Your task to perform on an android device: Clear the shopping cart on amazon.com. Add bose soundlink to the cart on amazon.com, then select checkout. Image 0: 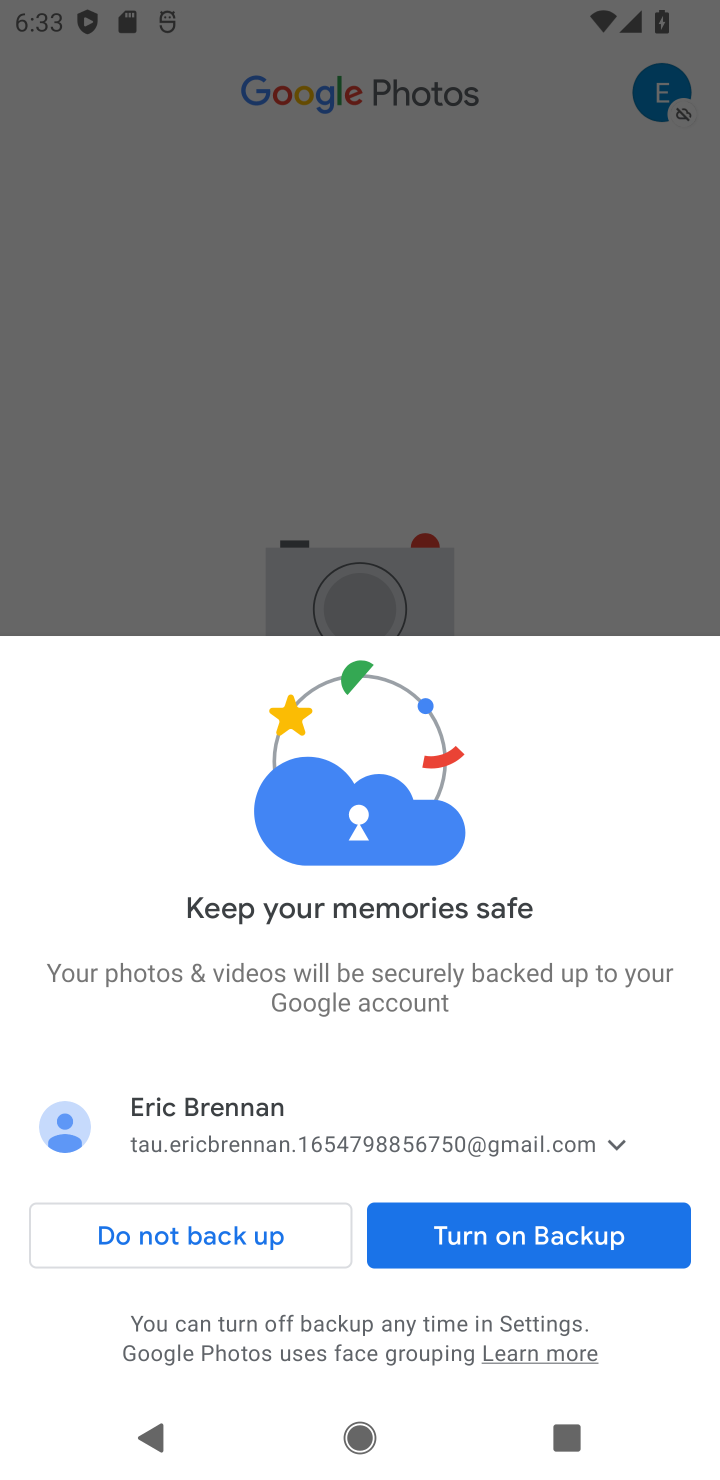
Step 0: press home button
Your task to perform on an android device: Clear the shopping cart on amazon.com. Add bose soundlink to the cart on amazon.com, then select checkout. Image 1: 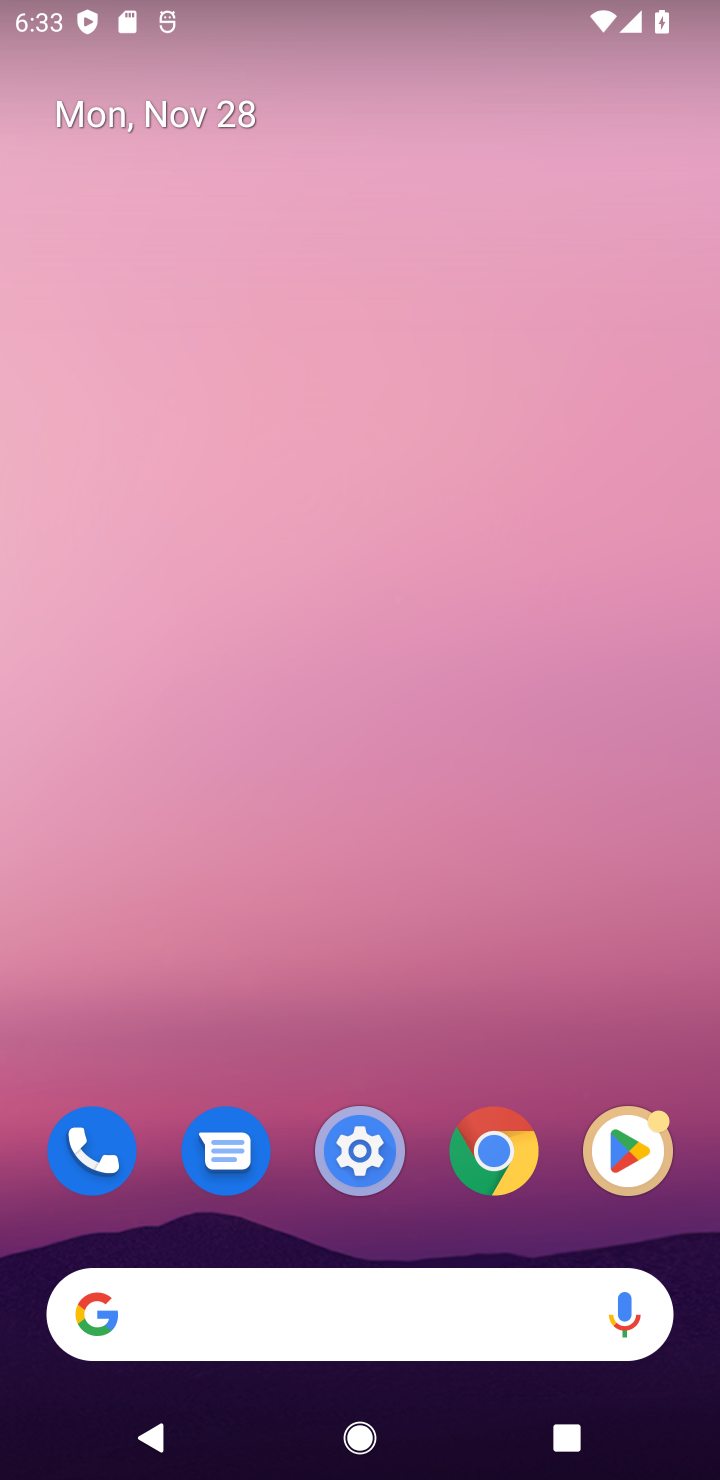
Step 1: click (353, 1300)
Your task to perform on an android device: Clear the shopping cart on amazon.com. Add bose soundlink to the cart on amazon.com, then select checkout. Image 2: 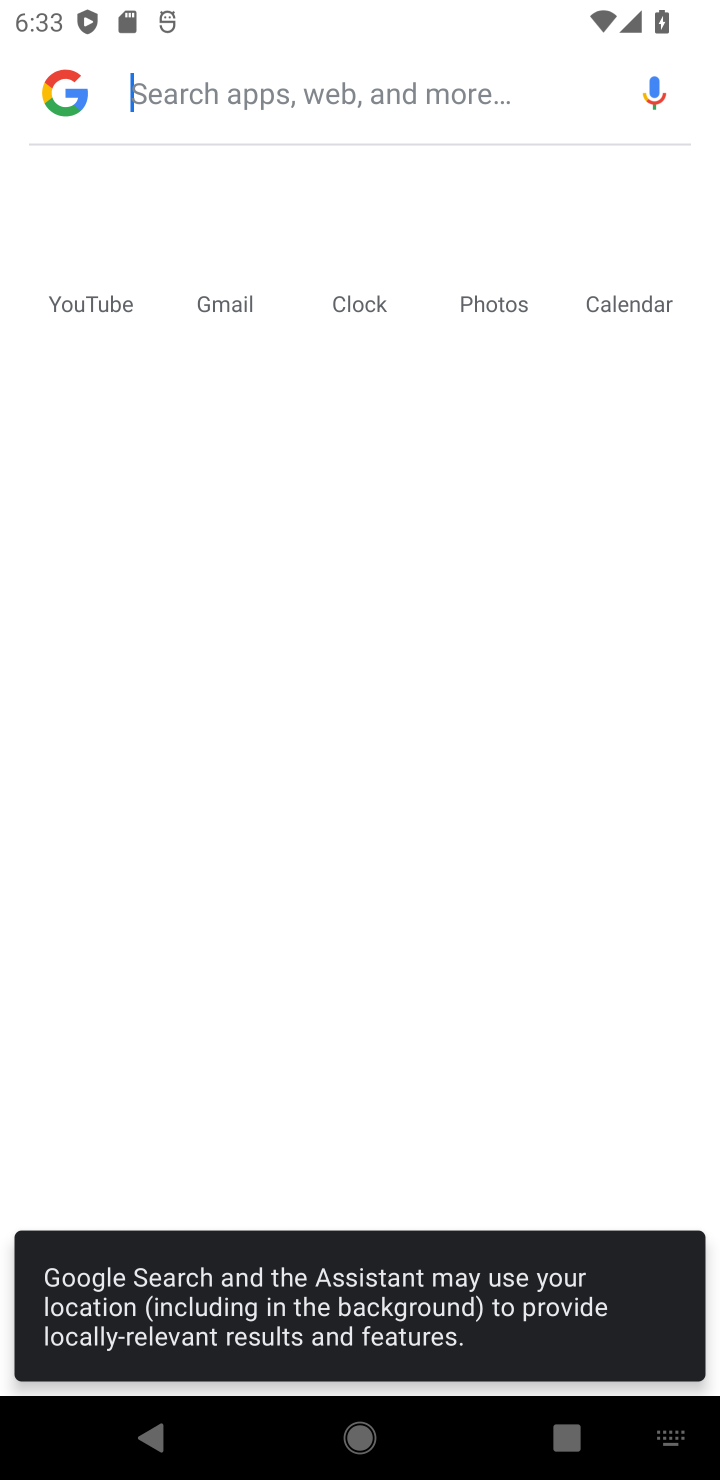
Step 2: type "amazon.com"
Your task to perform on an android device: Clear the shopping cart on amazon.com. Add bose soundlink to the cart on amazon.com, then select checkout. Image 3: 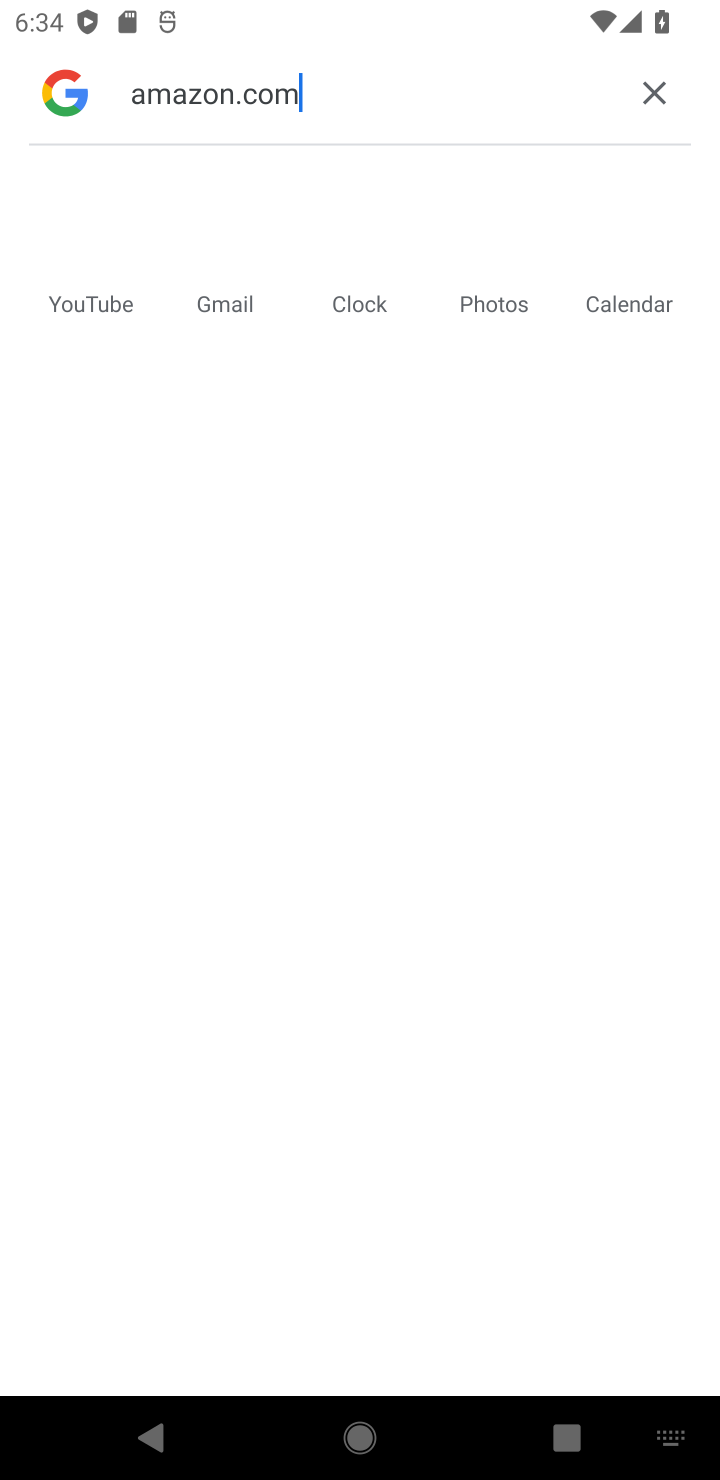
Step 3: click (366, 108)
Your task to perform on an android device: Clear the shopping cart on amazon.com. Add bose soundlink to the cart on amazon.com, then select checkout. Image 4: 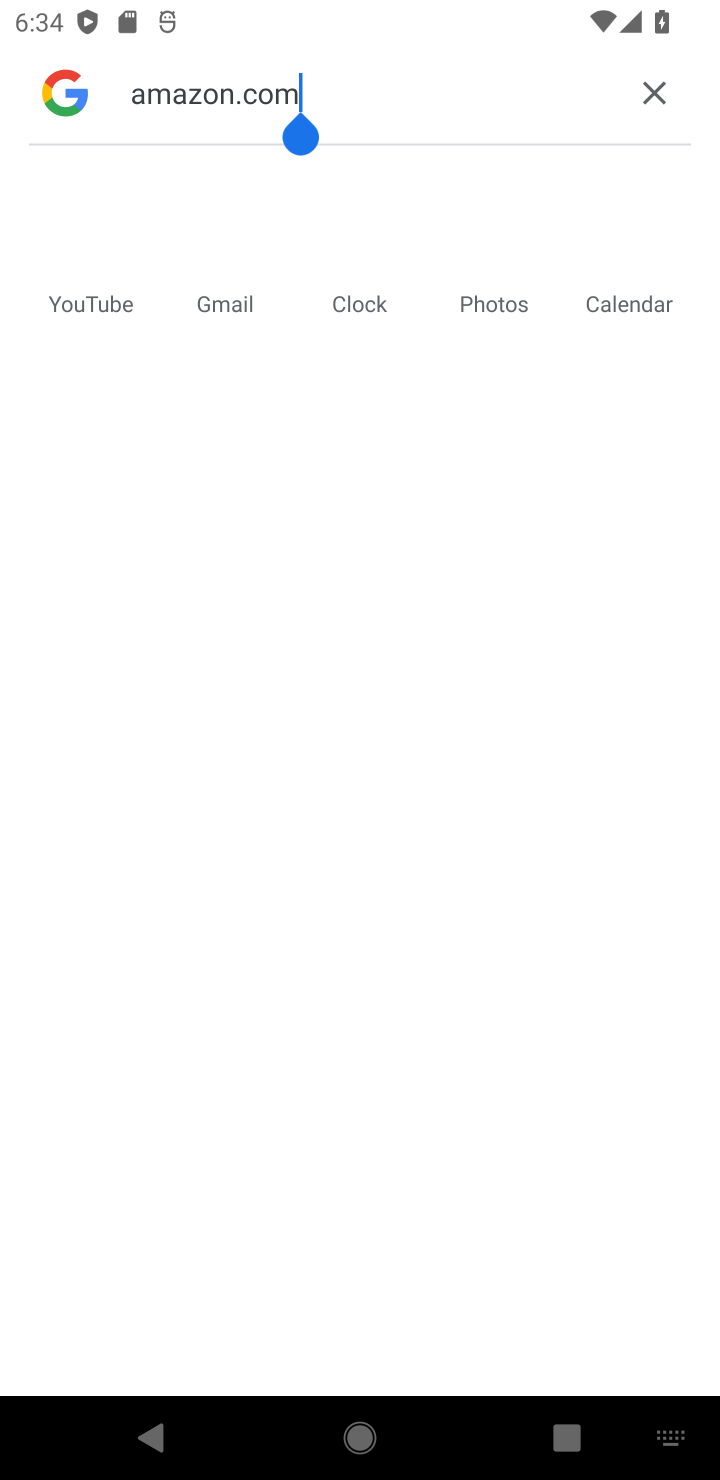
Step 4: click (643, 103)
Your task to perform on an android device: Clear the shopping cart on amazon.com. Add bose soundlink to the cart on amazon.com, then select checkout. Image 5: 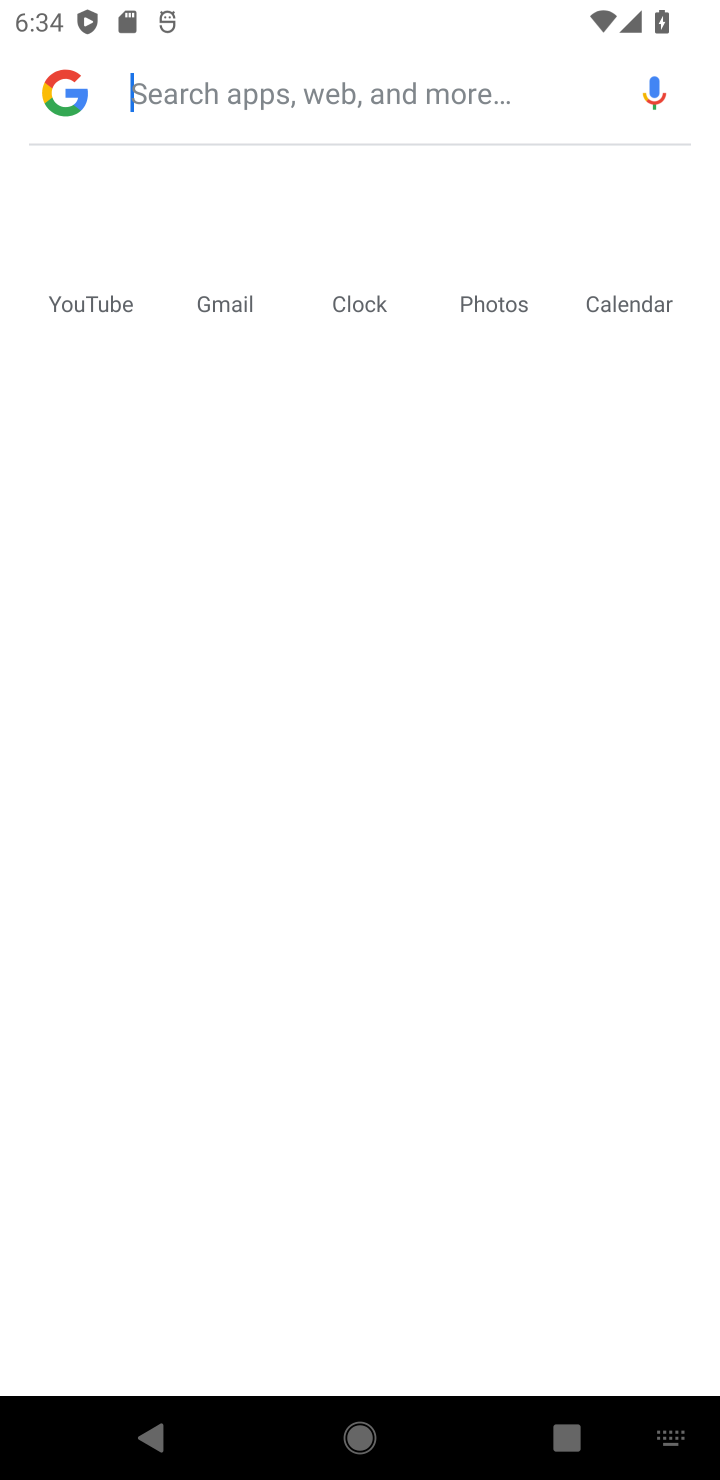
Step 5: press home button
Your task to perform on an android device: Clear the shopping cart on amazon.com. Add bose soundlink to the cart on amazon.com, then select checkout. Image 6: 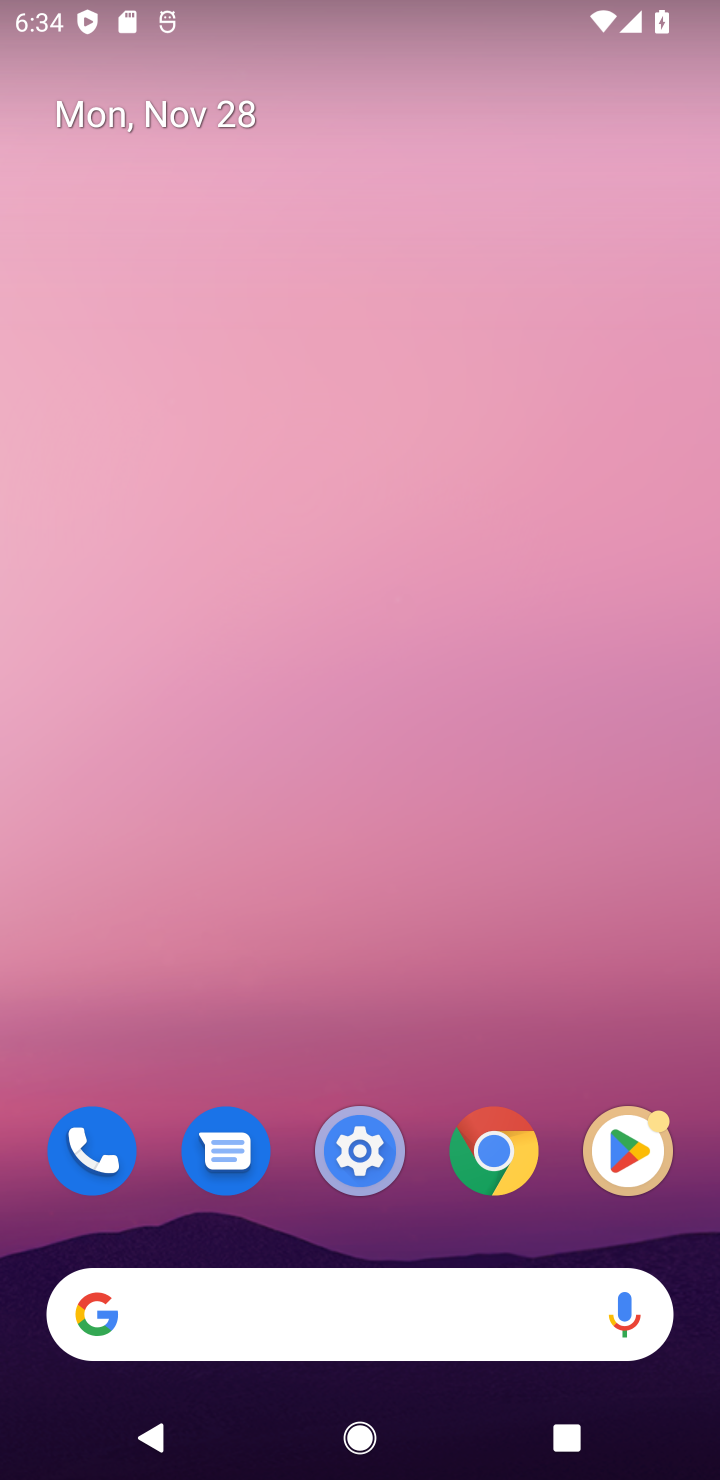
Step 6: click (485, 1156)
Your task to perform on an android device: Clear the shopping cart on amazon.com. Add bose soundlink to the cart on amazon.com, then select checkout. Image 7: 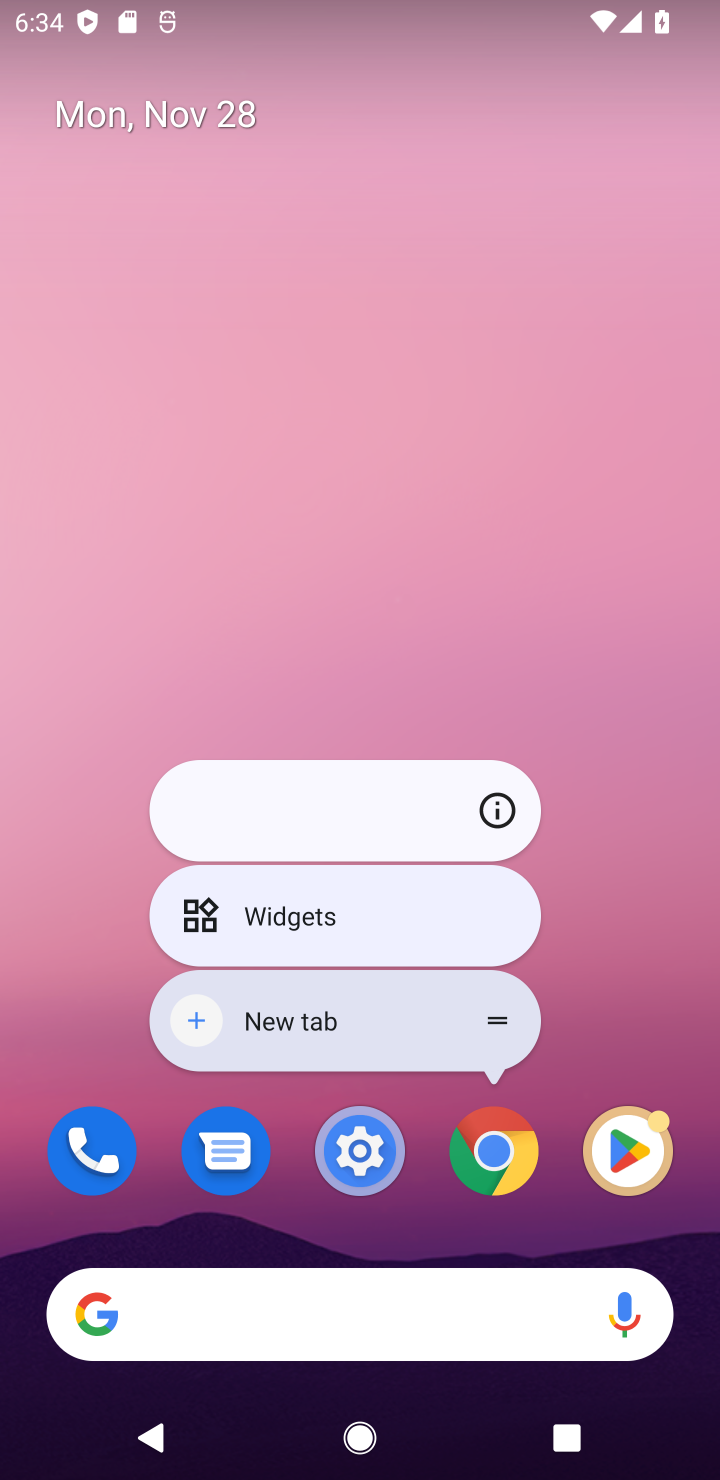
Step 7: click (485, 1156)
Your task to perform on an android device: Clear the shopping cart on amazon.com. Add bose soundlink to the cart on amazon.com, then select checkout. Image 8: 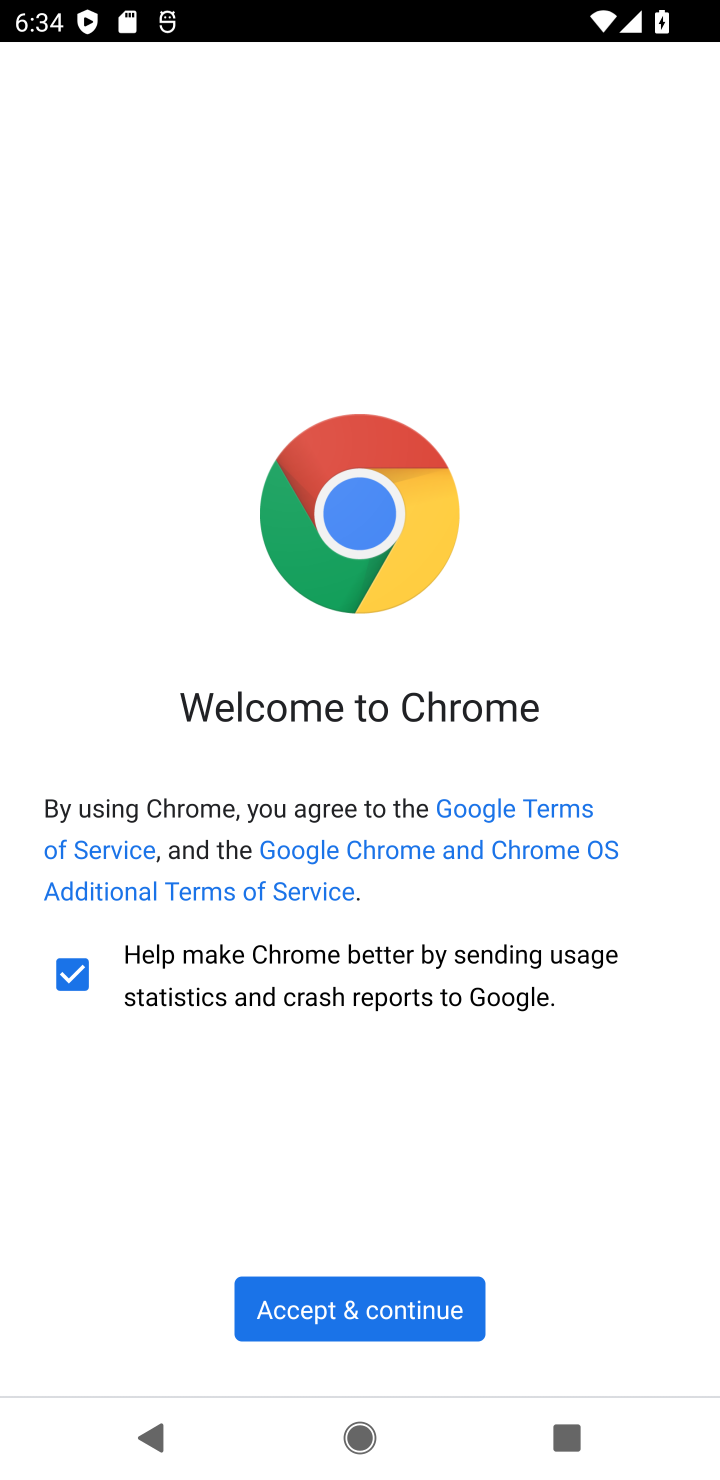
Step 8: click (396, 1286)
Your task to perform on an android device: Clear the shopping cart on amazon.com. Add bose soundlink to the cart on amazon.com, then select checkout. Image 9: 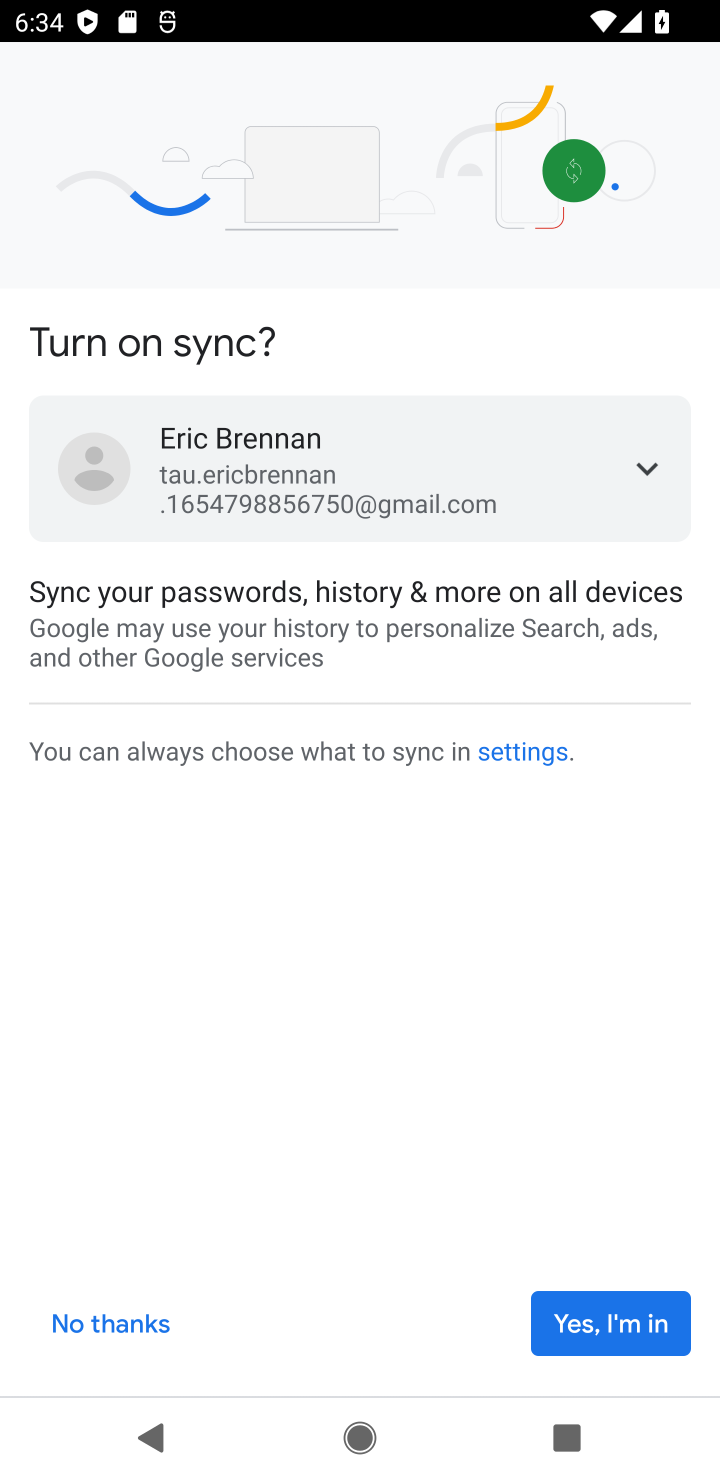
Step 9: click (647, 1324)
Your task to perform on an android device: Clear the shopping cart on amazon.com. Add bose soundlink to the cart on amazon.com, then select checkout. Image 10: 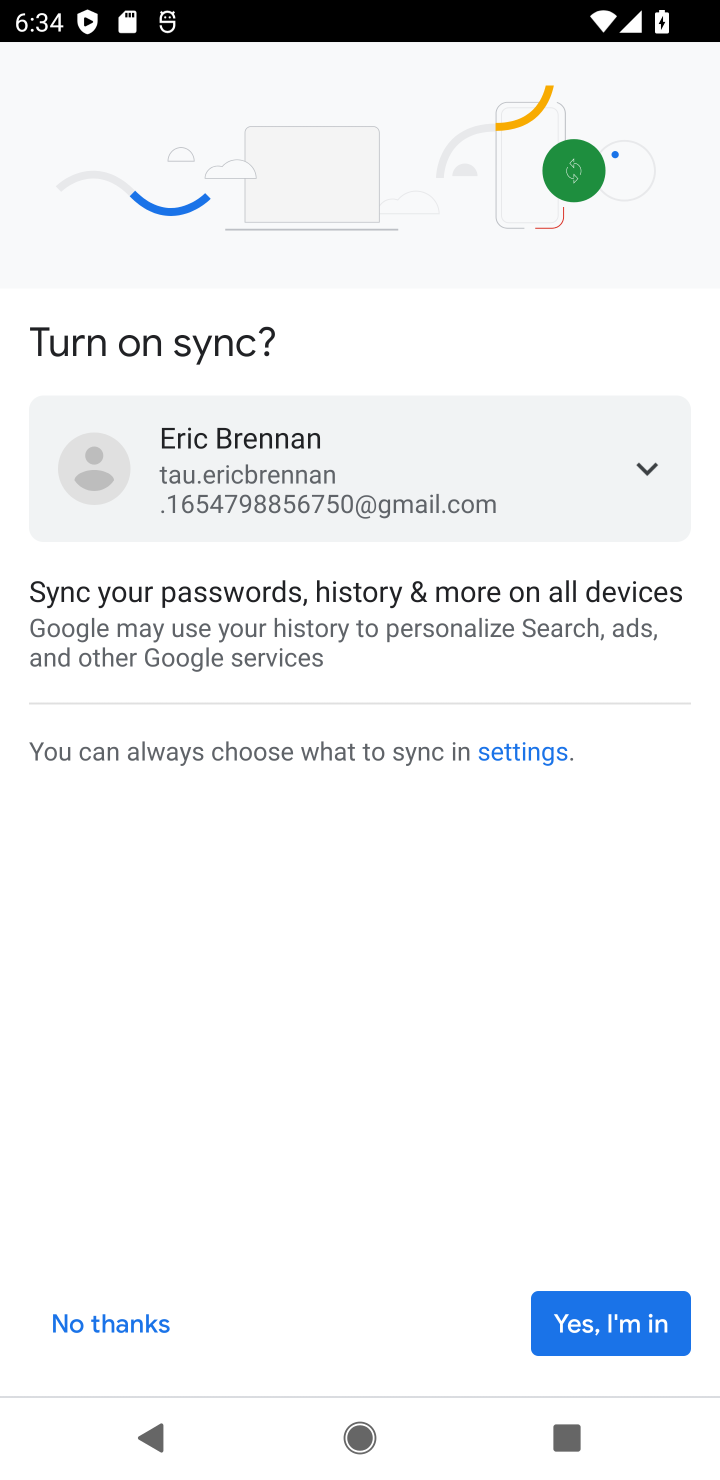
Step 10: click (647, 1324)
Your task to perform on an android device: Clear the shopping cart on amazon.com. Add bose soundlink to the cart on amazon.com, then select checkout. Image 11: 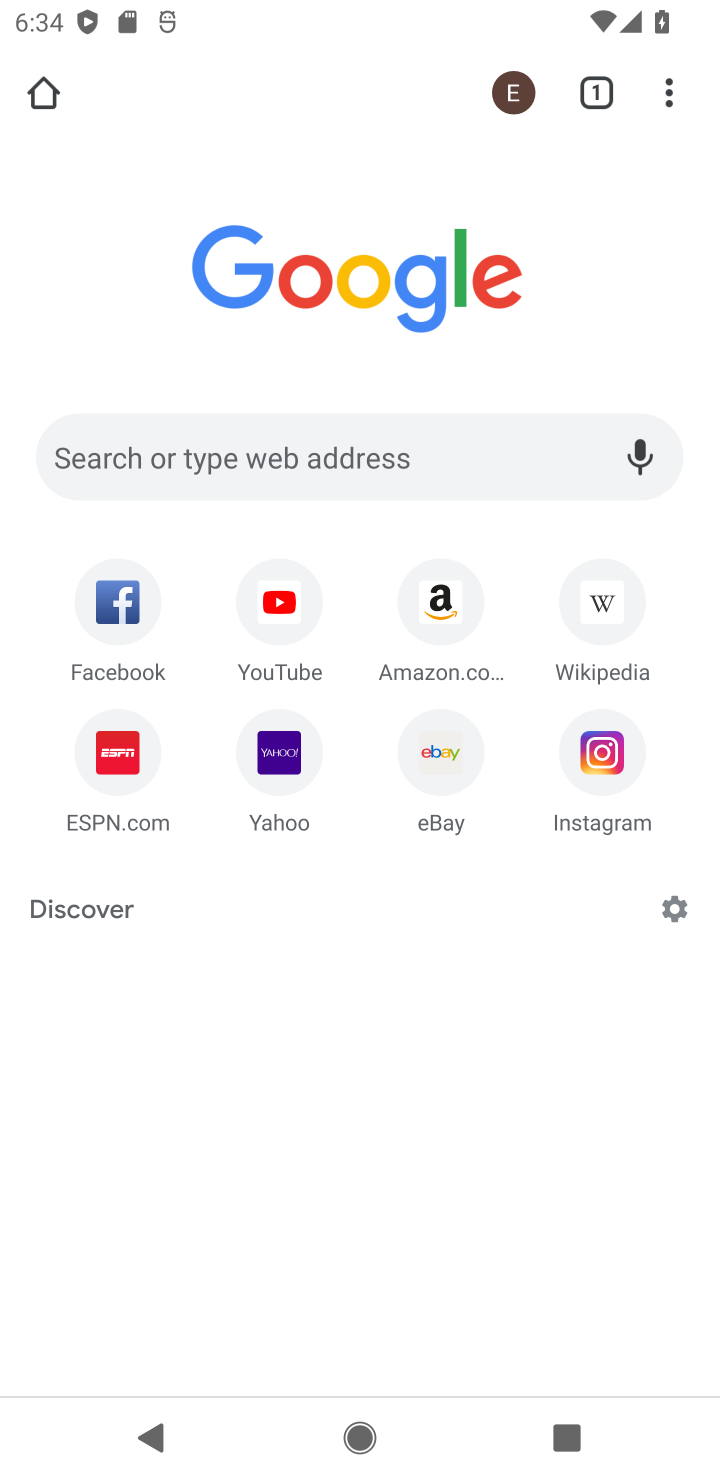
Step 11: click (256, 473)
Your task to perform on an android device: Clear the shopping cart on amazon.com. Add bose soundlink to the cart on amazon.com, then select checkout. Image 12: 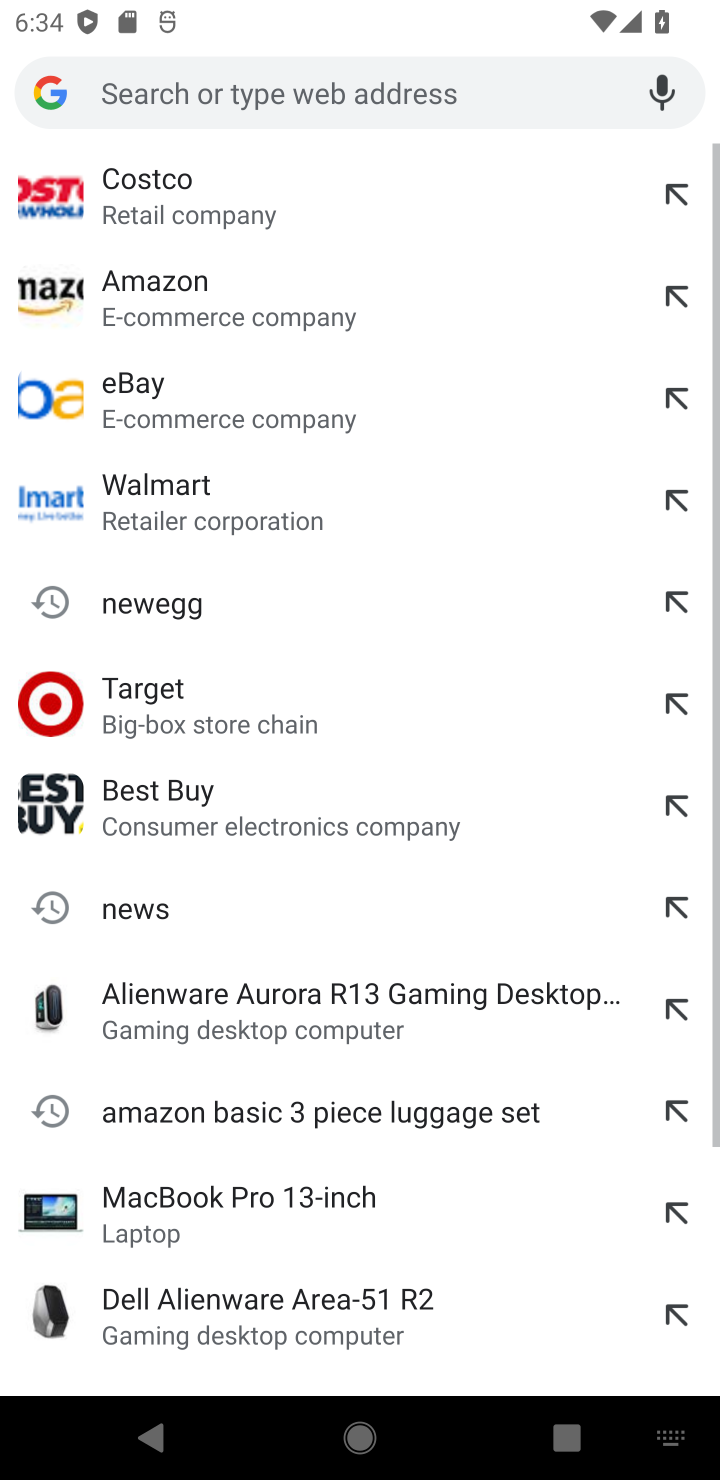
Step 12: click (213, 296)
Your task to perform on an android device: Clear the shopping cart on amazon.com. Add bose soundlink to the cart on amazon.com, then select checkout. Image 13: 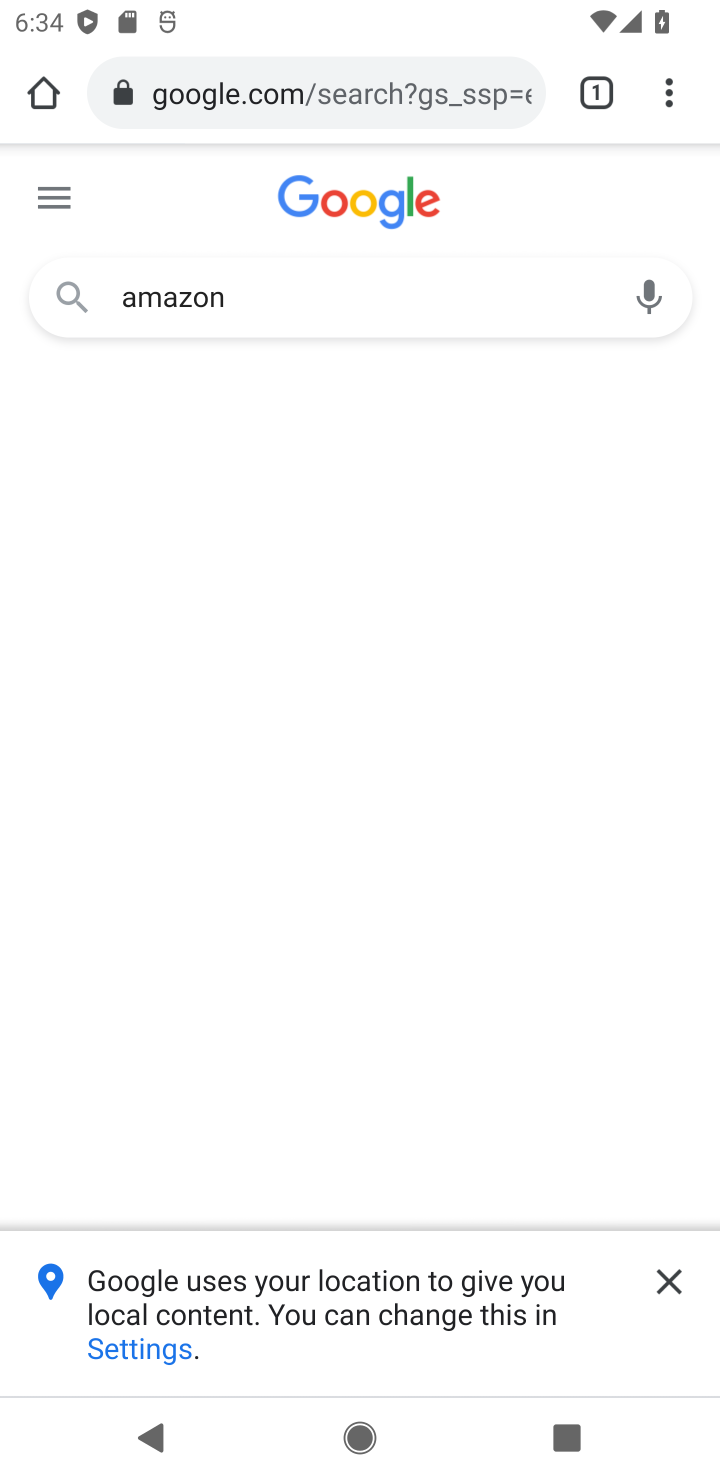
Step 13: click (675, 1271)
Your task to perform on an android device: Clear the shopping cart on amazon.com. Add bose soundlink to the cart on amazon.com, then select checkout. Image 14: 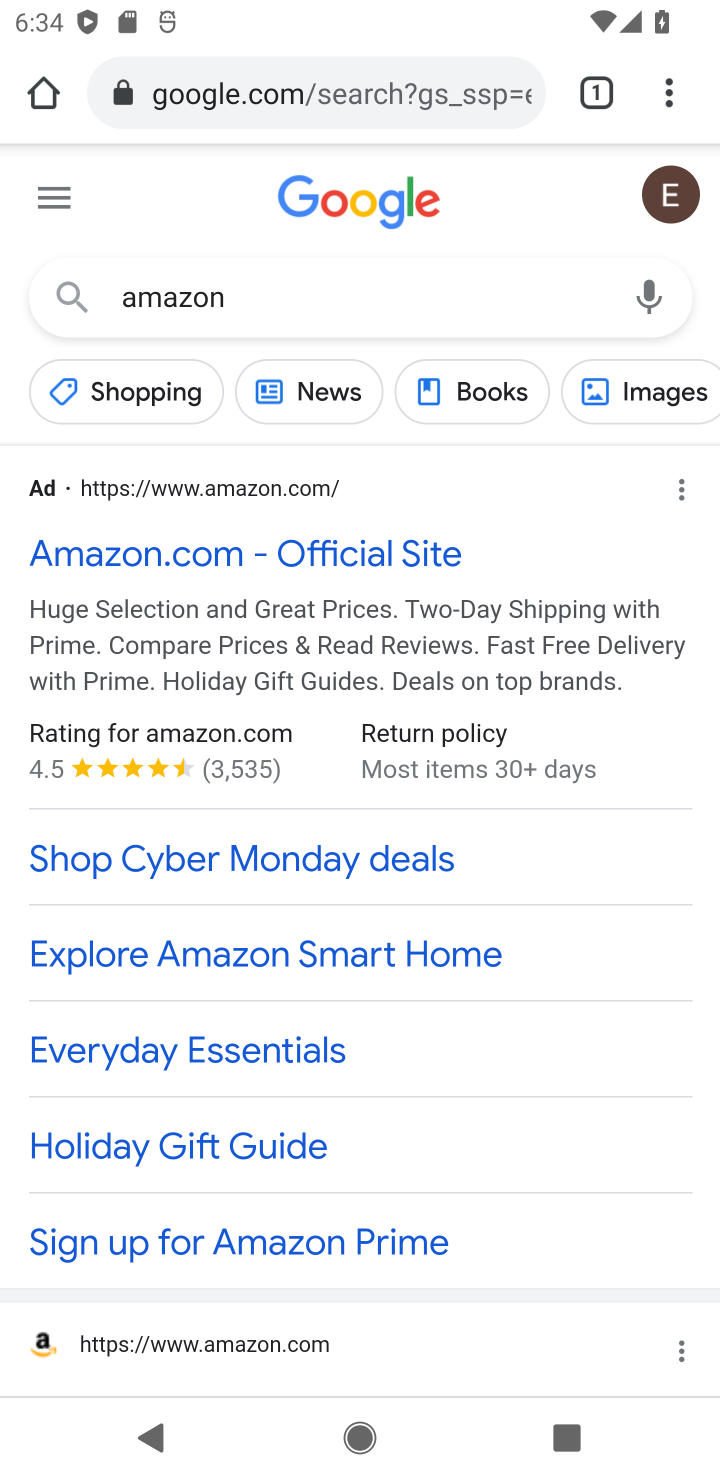
Step 14: click (148, 559)
Your task to perform on an android device: Clear the shopping cart on amazon.com. Add bose soundlink to the cart on amazon.com, then select checkout. Image 15: 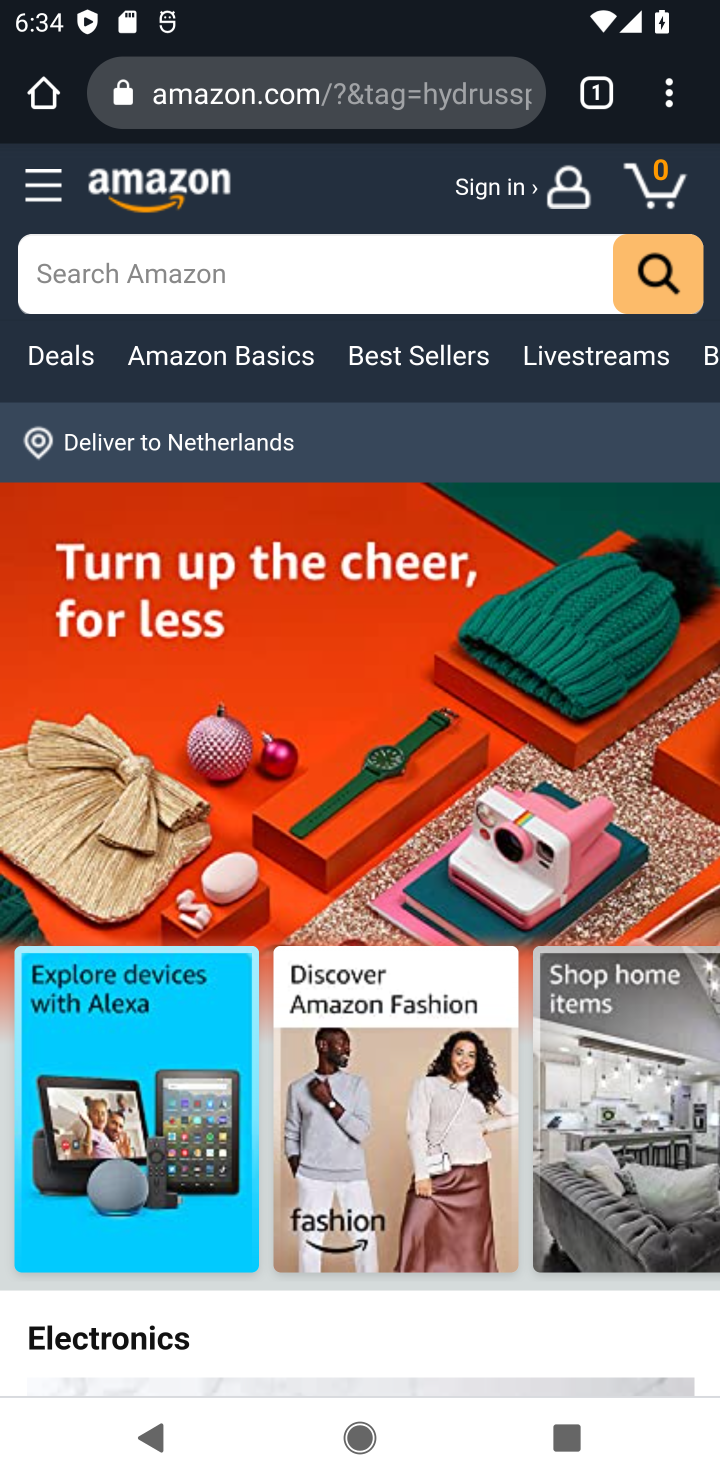
Step 15: click (287, 295)
Your task to perform on an android device: Clear the shopping cart on amazon.com. Add bose soundlink to the cart on amazon.com, then select checkout. Image 16: 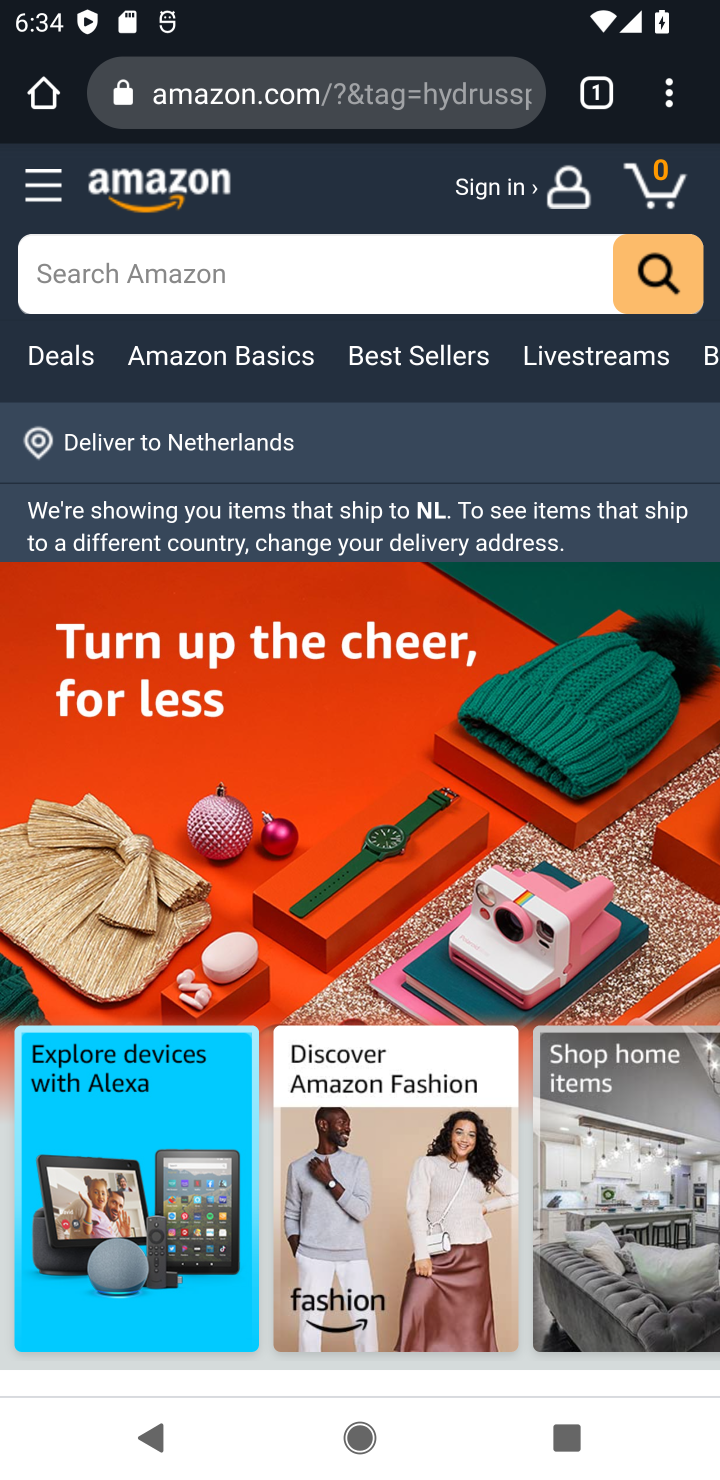
Step 16: type "soundlink"
Your task to perform on an android device: Clear the shopping cart on amazon.com. Add bose soundlink to the cart on amazon.com, then select checkout. Image 17: 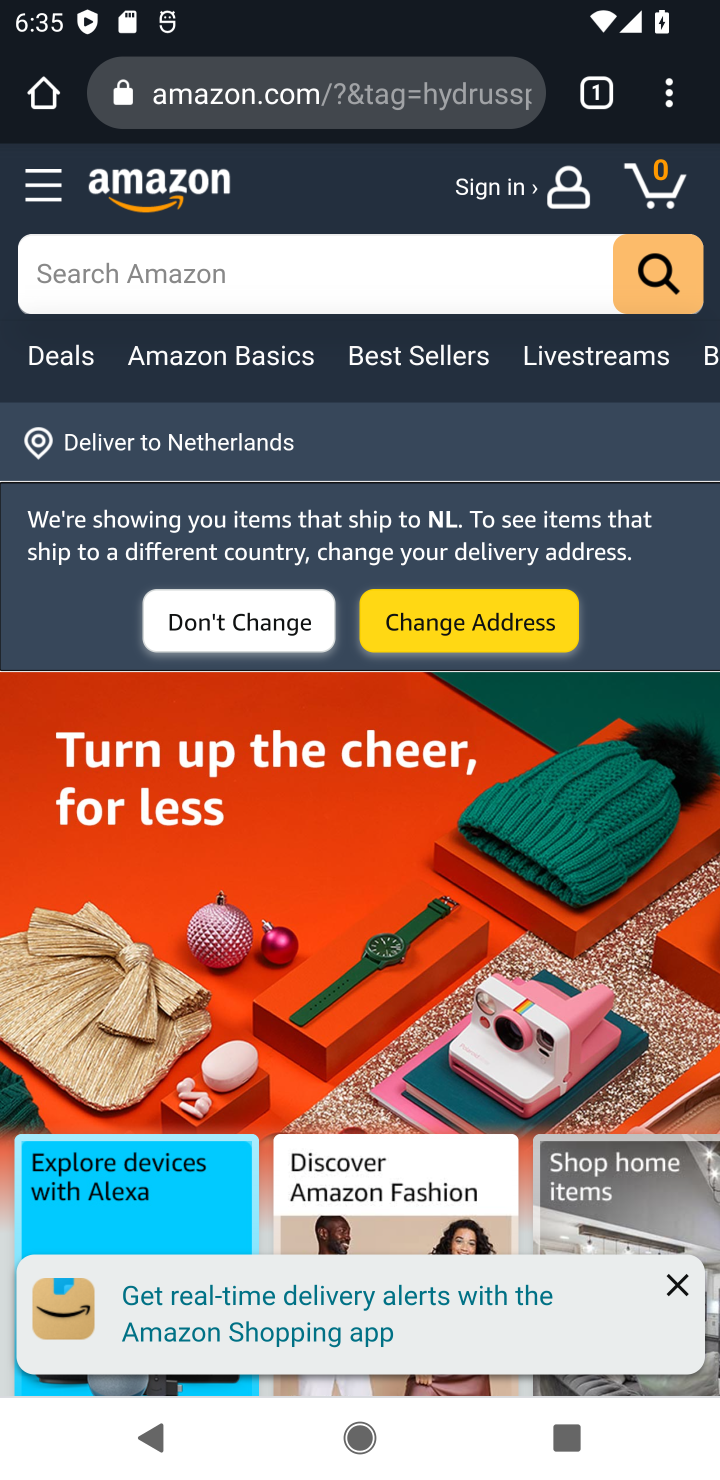
Step 17: task complete